Your task to perform on an android device: create a new album in the google photos Image 0: 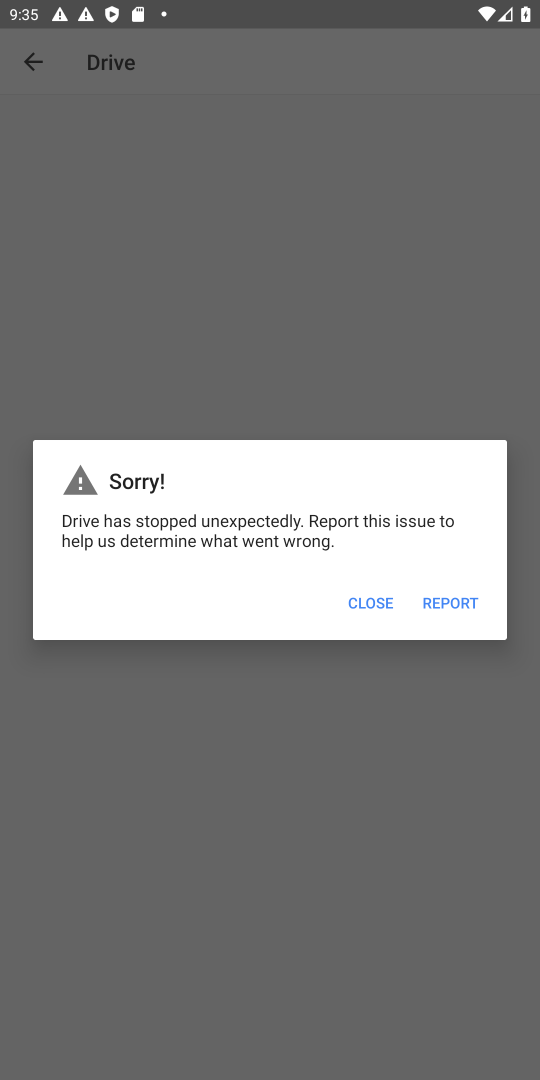
Step 0: press home button
Your task to perform on an android device: create a new album in the google photos Image 1: 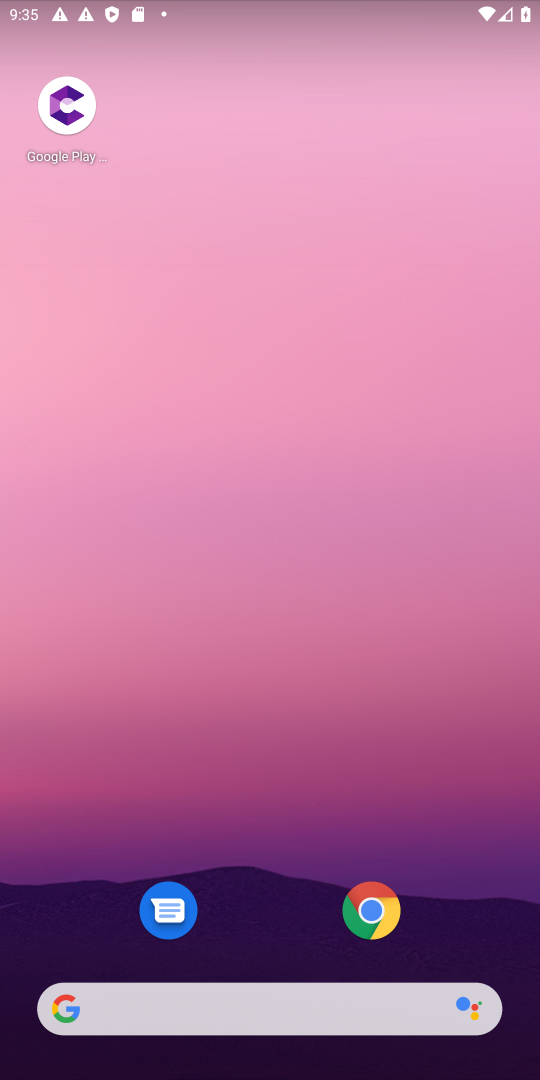
Step 1: drag from (296, 936) to (61, 38)
Your task to perform on an android device: create a new album in the google photos Image 2: 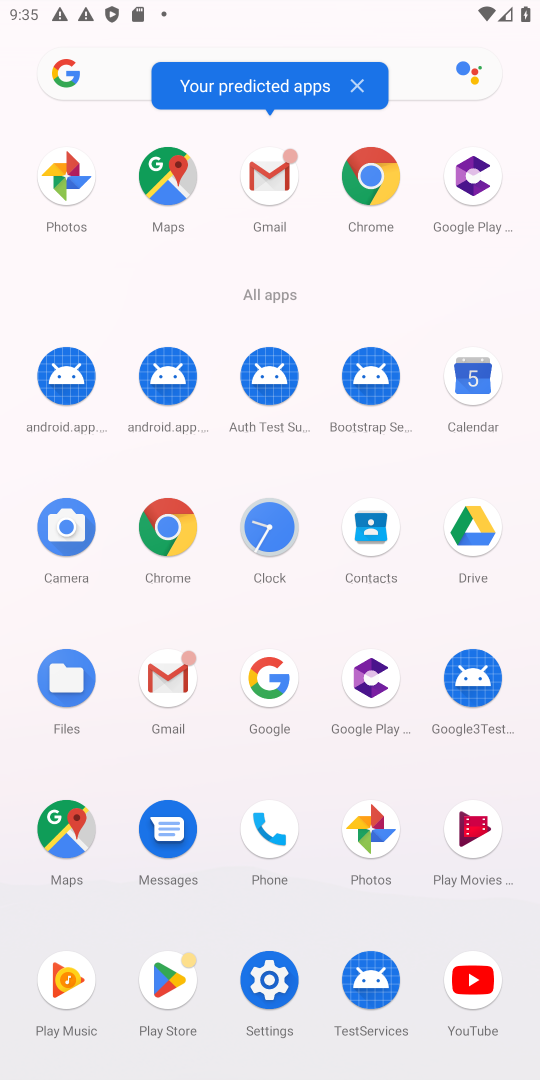
Step 2: click (59, 182)
Your task to perform on an android device: create a new album in the google photos Image 3: 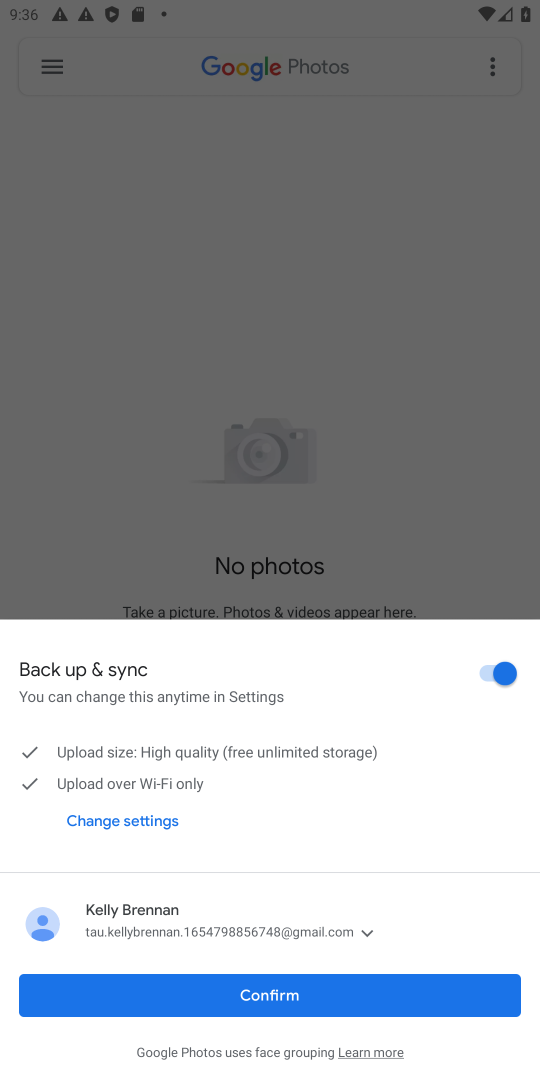
Step 3: click (129, 996)
Your task to perform on an android device: create a new album in the google photos Image 4: 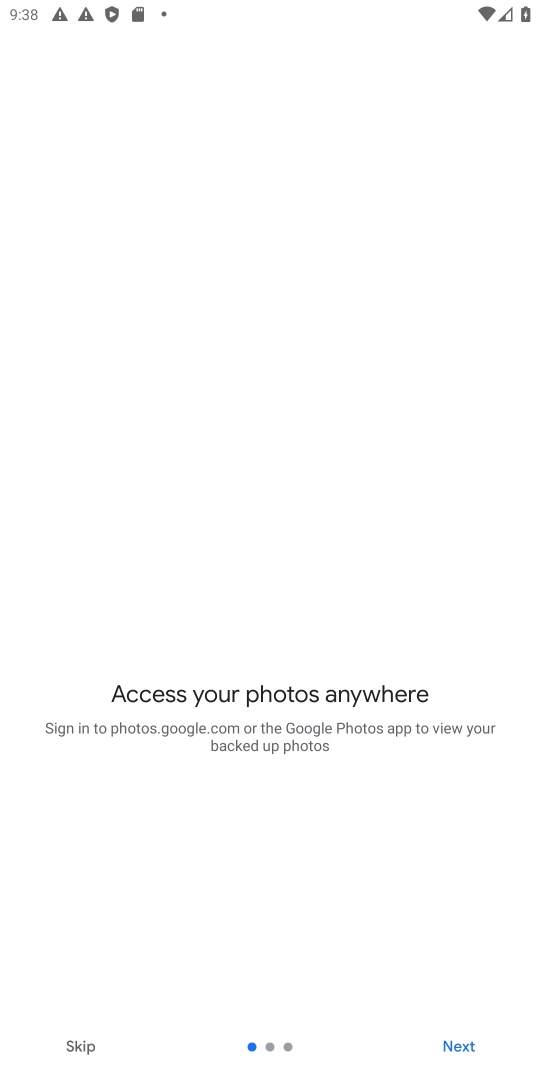
Step 4: task complete